Your task to perform on an android device: turn on sleep mode Image 0: 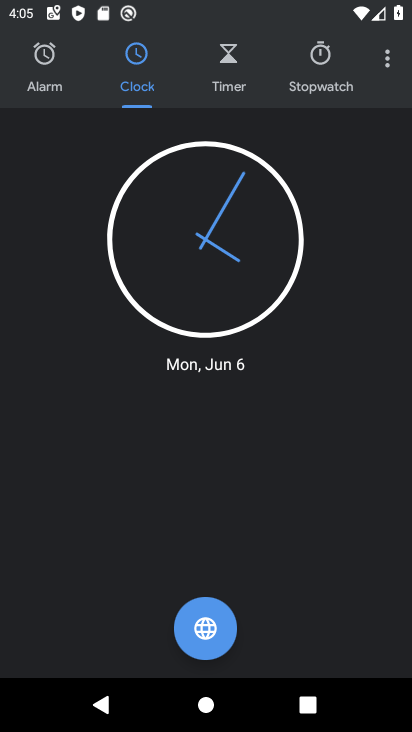
Step 0: press home button
Your task to perform on an android device: turn on sleep mode Image 1: 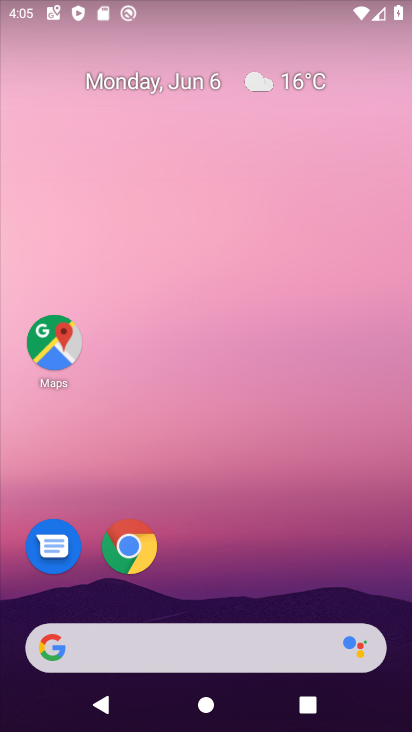
Step 1: drag from (342, 521) to (319, 0)
Your task to perform on an android device: turn on sleep mode Image 2: 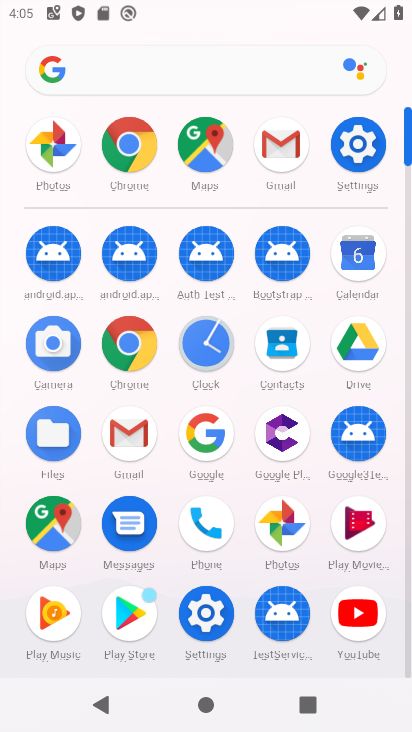
Step 2: click (375, 148)
Your task to perform on an android device: turn on sleep mode Image 3: 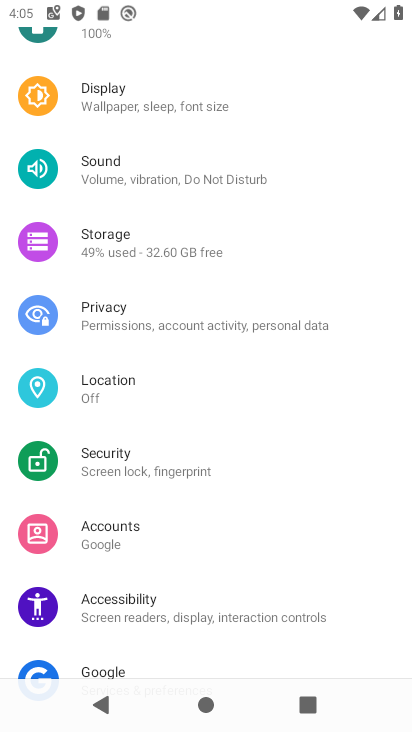
Step 3: drag from (197, 209) to (203, 590)
Your task to perform on an android device: turn on sleep mode Image 4: 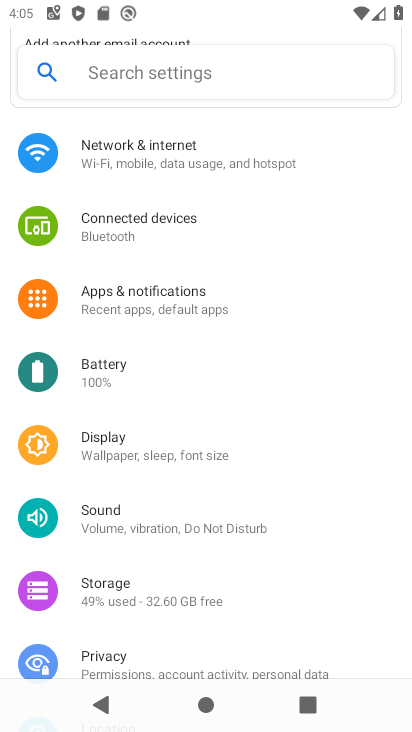
Step 4: drag from (205, 235) to (220, 564)
Your task to perform on an android device: turn on sleep mode Image 5: 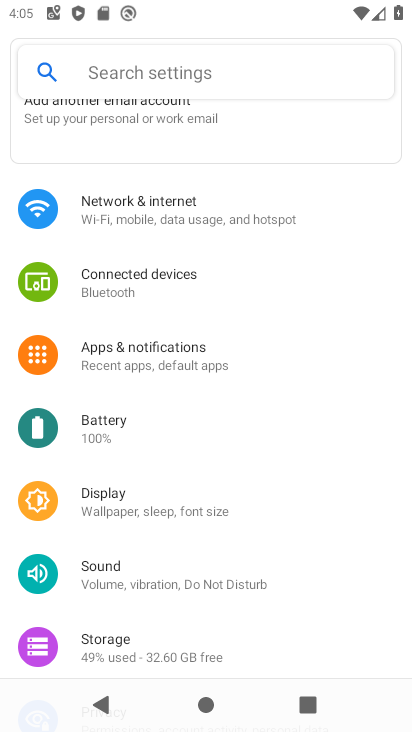
Step 5: click (138, 504)
Your task to perform on an android device: turn on sleep mode Image 6: 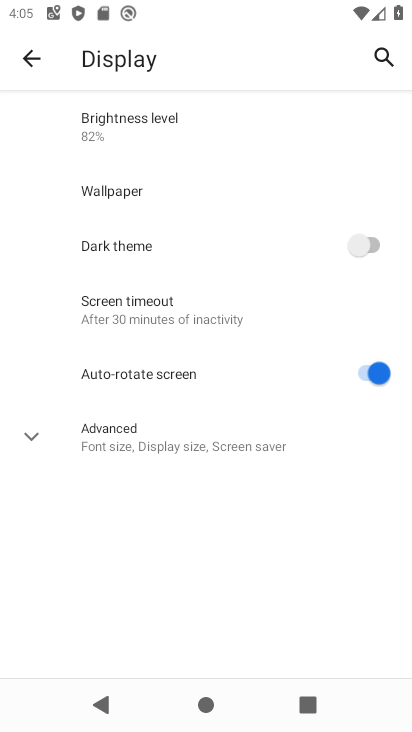
Step 6: click (142, 317)
Your task to perform on an android device: turn on sleep mode Image 7: 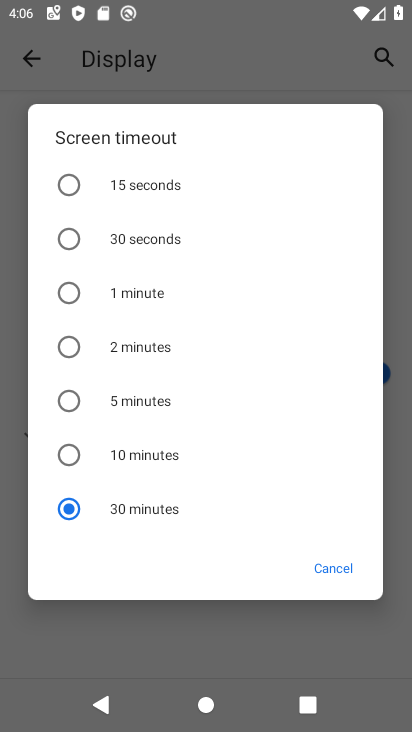
Step 7: task complete